Your task to perform on an android device: choose inbox layout in the gmail app Image 0: 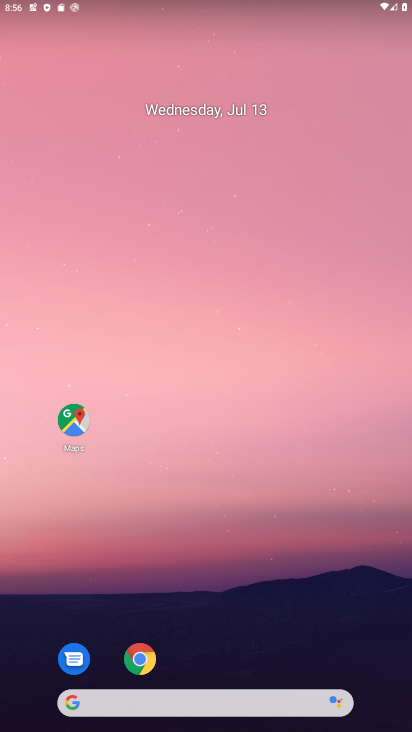
Step 0: drag from (218, 587) to (270, 152)
Your task to perform on an android device: choose inbox layout in the gmail app Image 1: 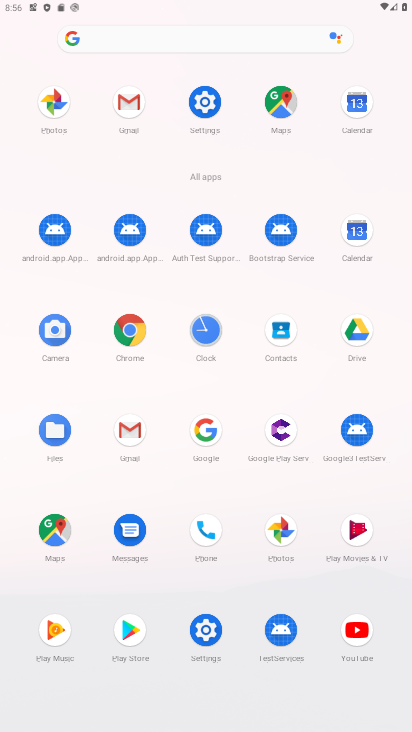
Step 1: click (130, 430)
Your task to perform on an android device: choose inbox layout in the gmail app Image 2: 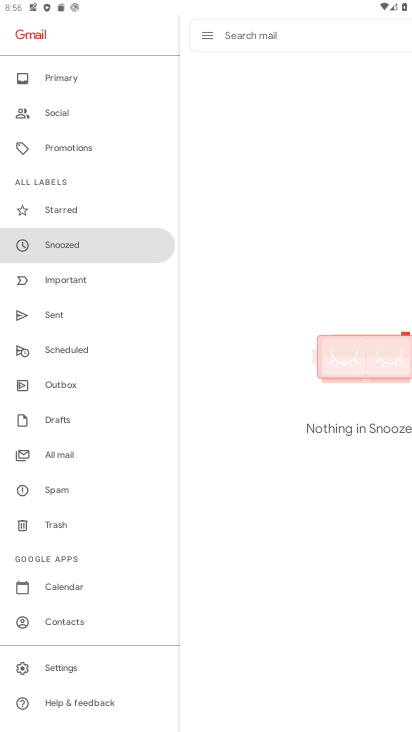
Step 2: click (64, 670)
Your task to perform on an android device: choose inbox layout in the gmail app Image 3: 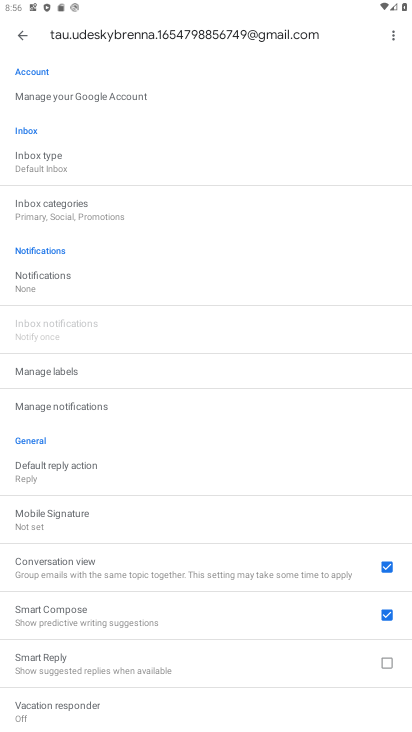
Step 3: click (60, 162)
Your task to perform on an android device: choose inbox layout in the gmail app Image 4: 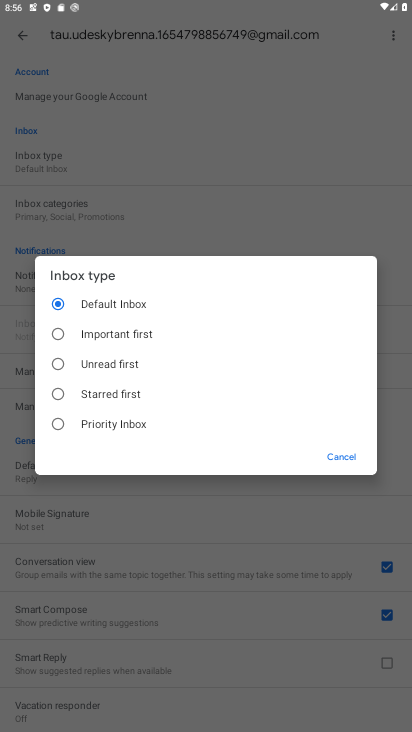
Step 4: click (54, 425)
Your task to perform on an android device: choose inbox layout in the gmail app Image 5: 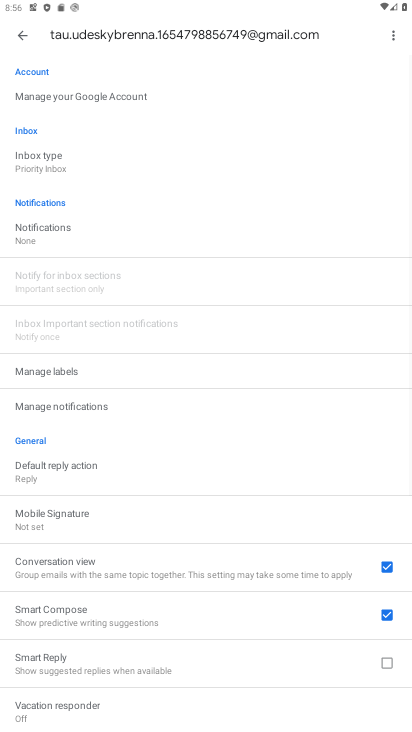
Step 5: task complete